Your task to perform on an android device: turn on priority inbox in the gmail app Image 0: 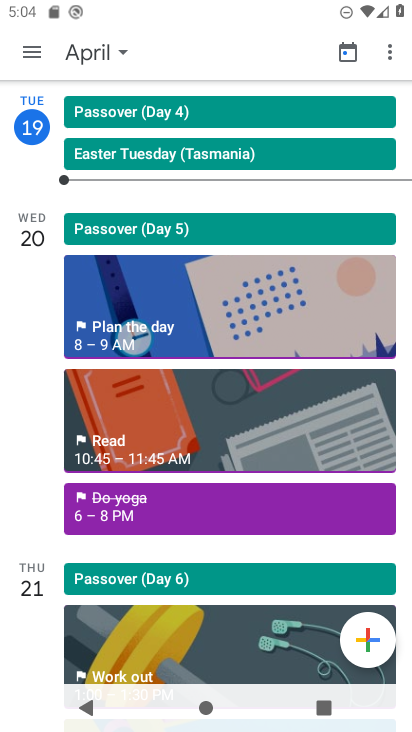
Step 0: press back button
Your task to perform on an android device: turn on priority inbox in the gmail app Image 1: 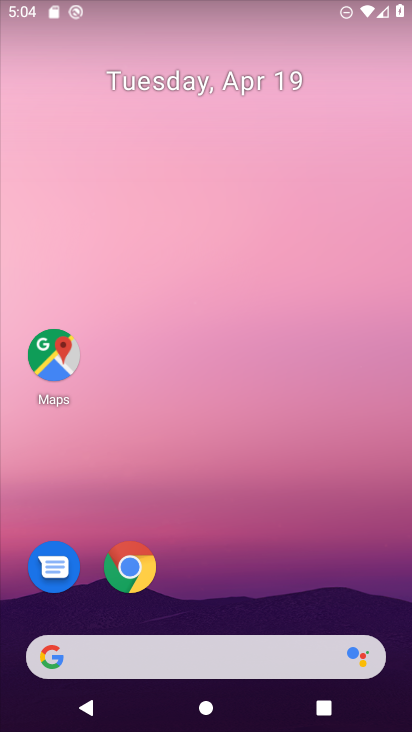
Step 1: drag from (360, 481) to (271, 60)
Your task to perform on an android device: turn on priority inbox in the gmail app Image 2: 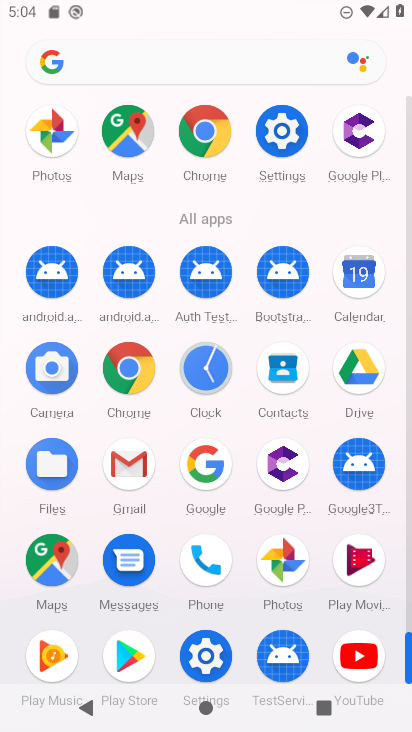
Step 2: drag from (13, 384) to (13, 183)
Your task to perform on an android device: turn on priority inbox in the gmail app Image 3: 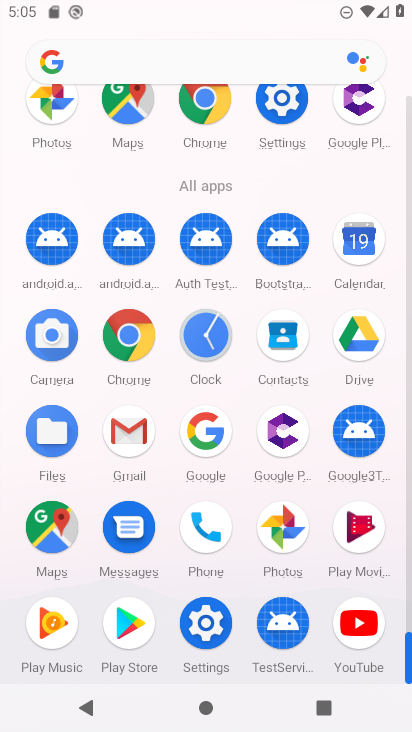
Step 3: click (134, 430)
Your task to perform on an android device: turn on priority inbox in the gmail app Image 4: 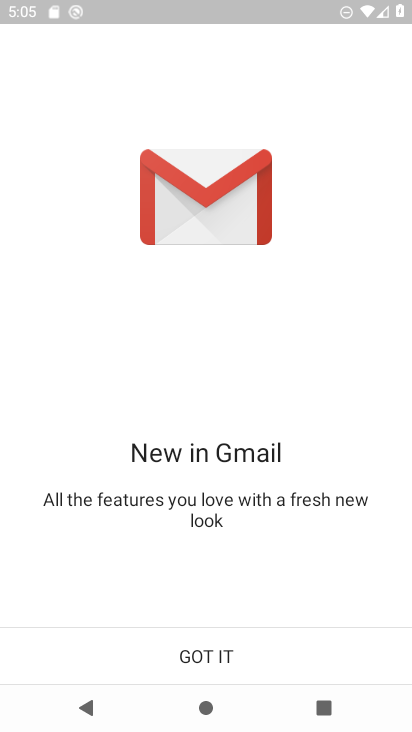
Step 4: click (252, 641)
Your task to perform on an android device: turn on priority inbox in the gmail app Image 5: 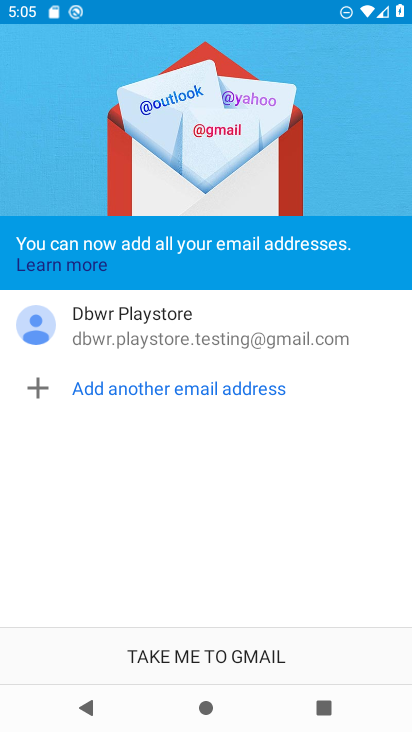
Step 5: click (247, 651)
Your task to perform on an android device: turn on priority inbox in the gmail app Image 6: 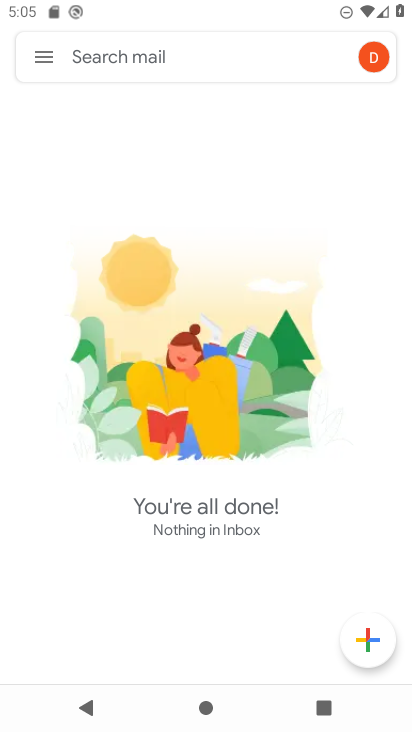
Step 6: click (47, 62)
Your task to perform on an android device: turn on priority inbox in the gmail app Image 7: 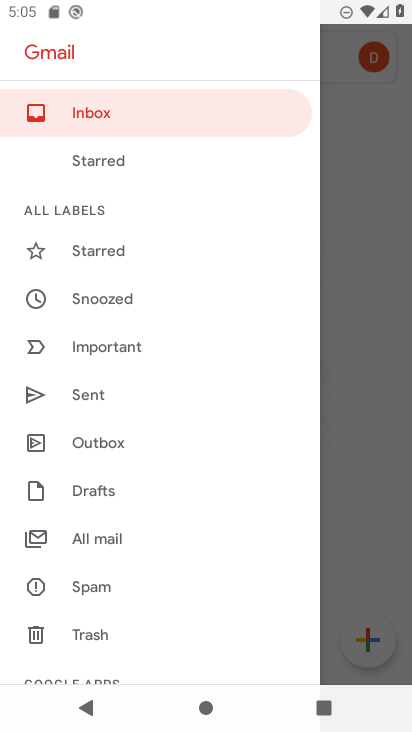
Step 7: drag from (186, 555) to (206, 168)
Your task to perform on an android device: turn on priority inbox in the gmail app Image 8: 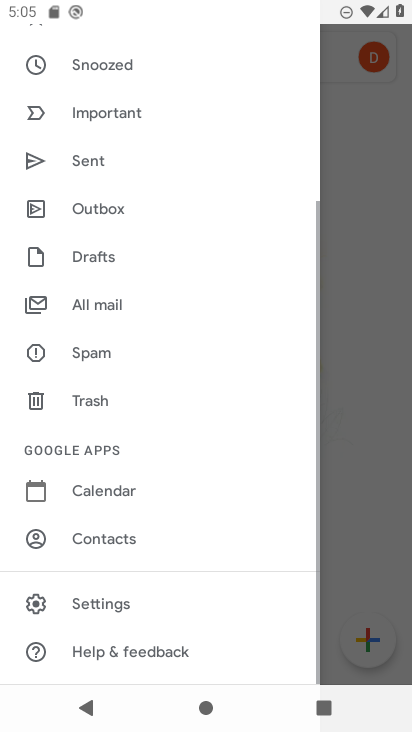
Step 8: drag from (166, 451) to (180, 95)
Your task to perform on an android device: turn on priority inbox in the gmail app Image 9: 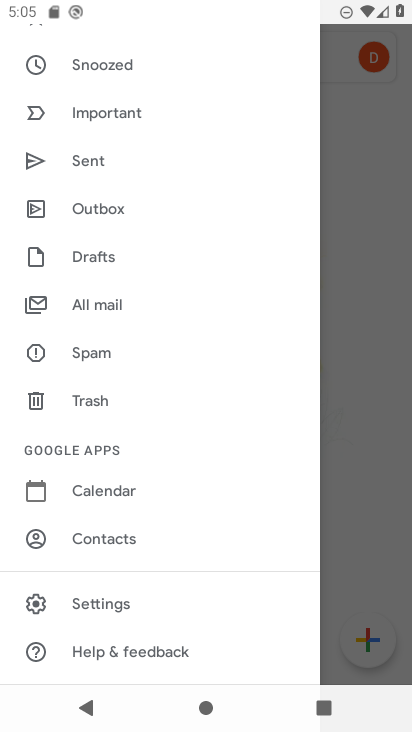
Step 9: click (108, 600)
Your task to perform on an android device: turn on priority inbox in the gmail app Image 10: 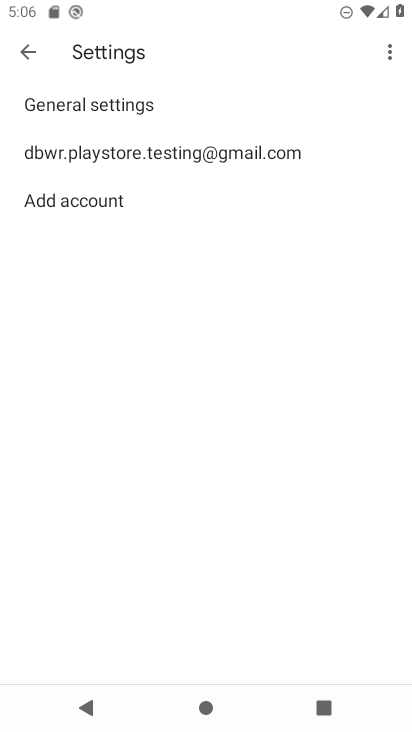
Step 10: click (190, 130)
Your task to perform on an android device: turn on priority inbox in the gmail app Image 11: 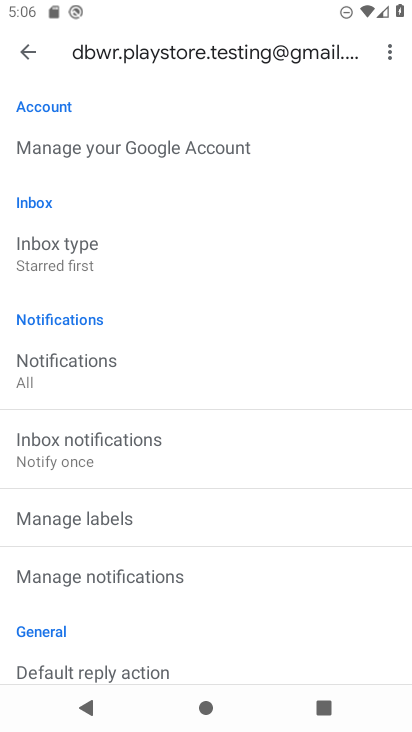
Step 11: drag from (218, 475) to (240, 113)
Your task to perform on an android device: turn on priority inbox in the gmail app Image 12: 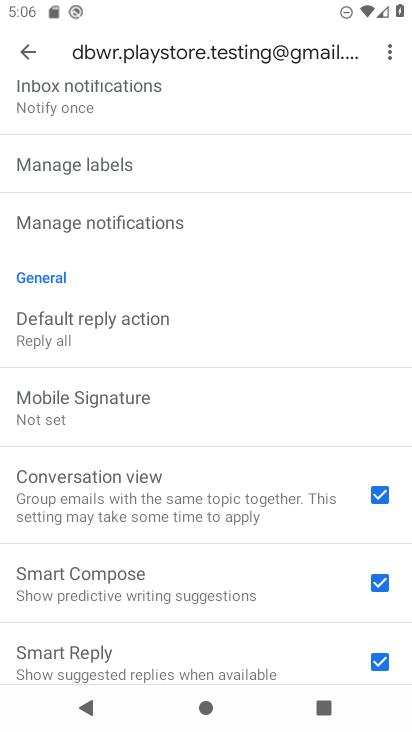
Step 12: drag from (235, 575) to (248, 151)
Your task to perform on an android device: turn on priority inbox in the gmail app Image 13: 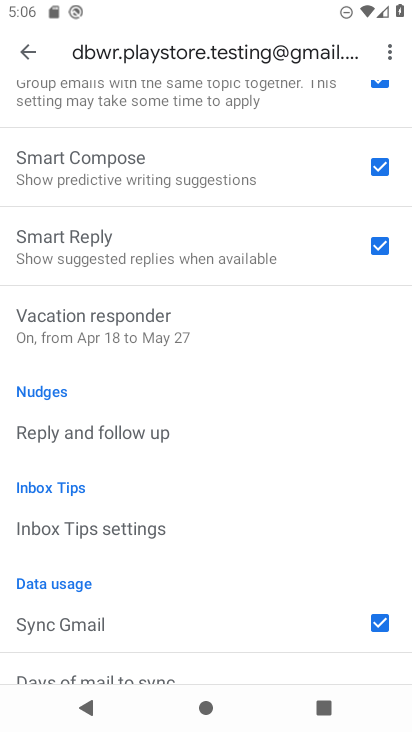
Step 13: drag from (184, 573) to (201, 152)
Your task to perform on an android device: turn on priority inbox in the gmail app Image 14: 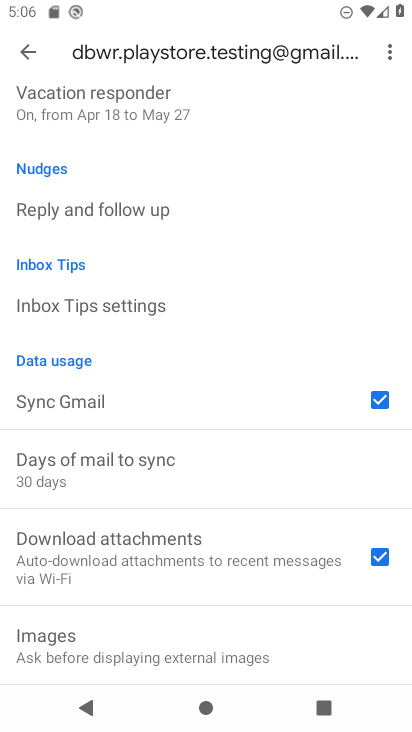
Step 14: drag from (176, 472) to (188, 170)
Your task to perform on an android device: turn on priority inbox in the gmail app Image 15: 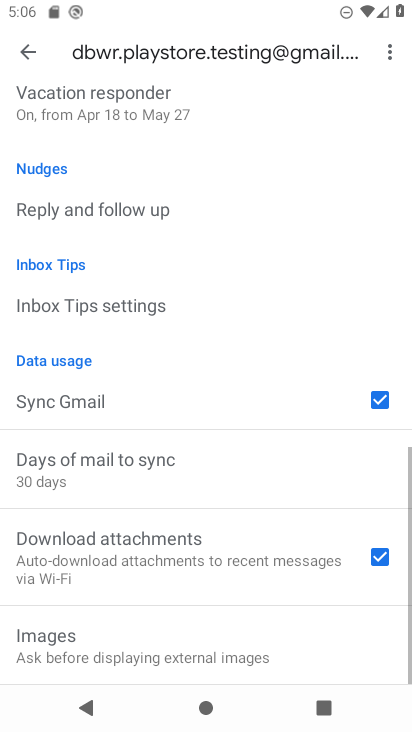
Step 15: drag from (201, 274) to (197, 582)
Your task to perform on an android device: turn on priority inbox in the gmail app Image 16: 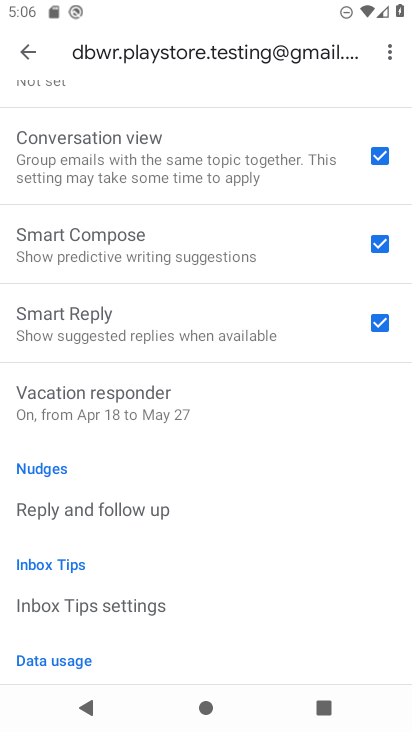
Step 16: drag from (184, 196) to (175, 545)
Your task to perform on an android device: turn on priority inbox in the gmail app Image 17: 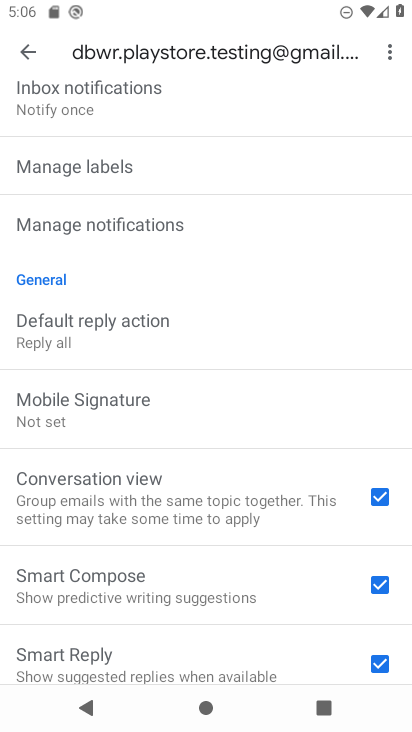
Step 17: drag from (190, 454) to (190, 534)
Your task to perform on an android device: turn on priority inbox in the gmail app Image 18: 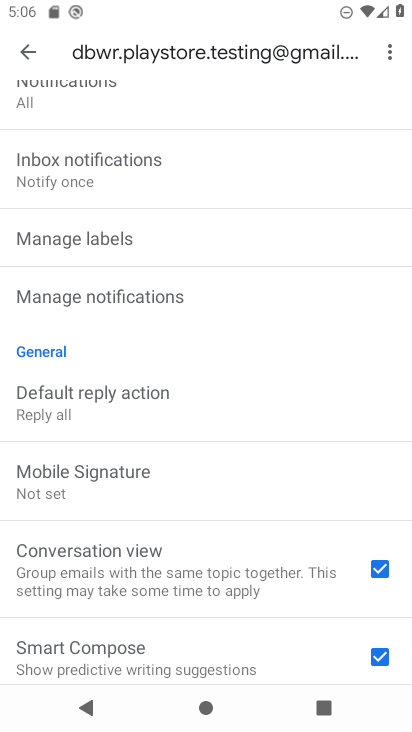
Step 18: drag from (194, 197) to (182, 525)
Your task to perform on an android device: turn on priority inbox in the gmail app Image 19: 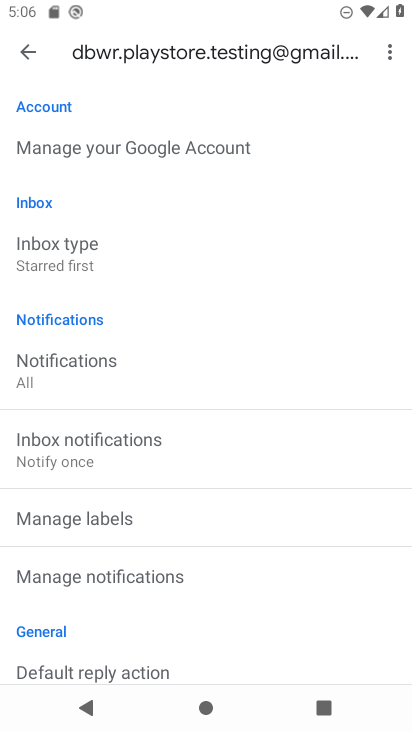
Step 19: click (108, 259)
Your task to perform on an android device: turn on priority inbox in the gmail app Image 20: 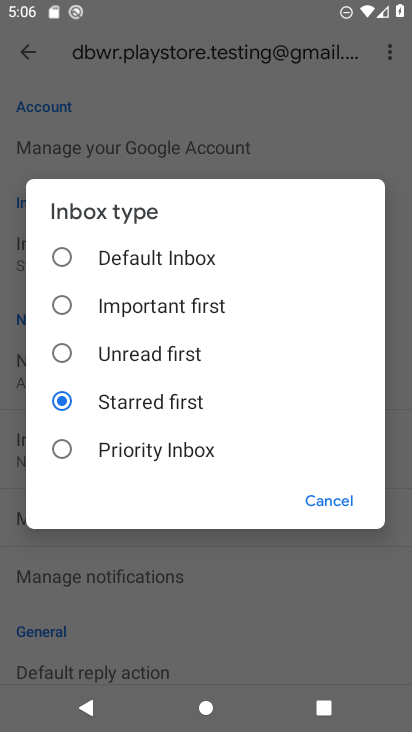
Step 20: click (137, 456)
Your task to perform on an android device: turn on priority inbox in the gmail app Image 21: 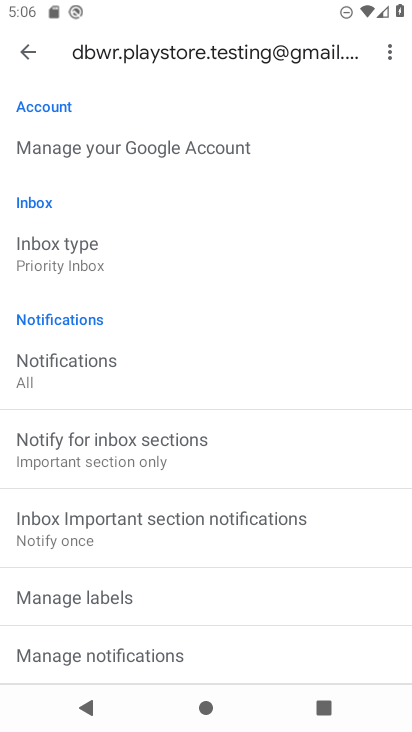
Step 21: task complete